Your task to perform on an android device: turn off wifi Image 0: 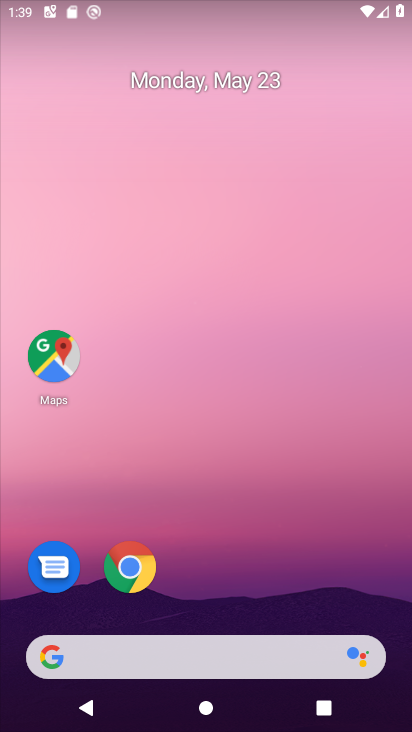
Step 0: drag from (262, 579) to (166, 161)
Your task to perform on an android device: turn off wifi Image 1: 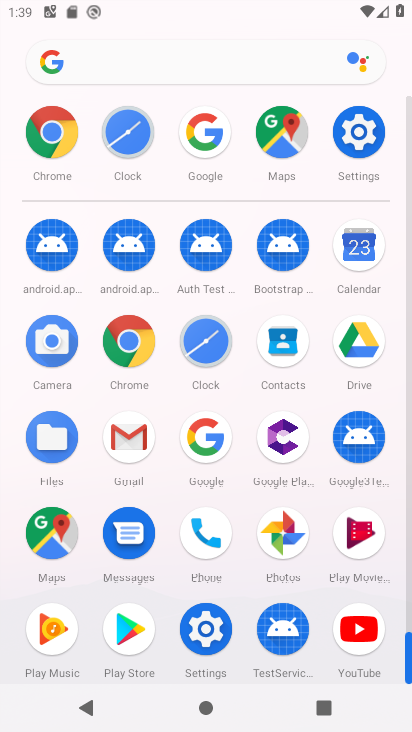
Step 1: click (345, 148)
Your task to perform on an android device: turn off wifi Image 2: 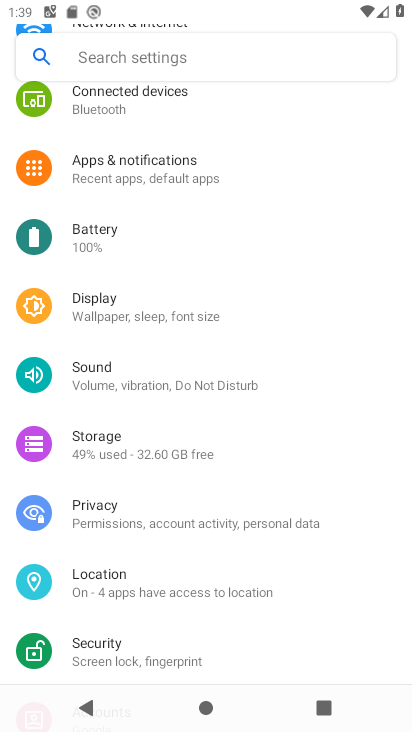
Step 2: drag from (155, 172) to (193, 601)
Your task to perform on an android device: turn off wifi Image 3: 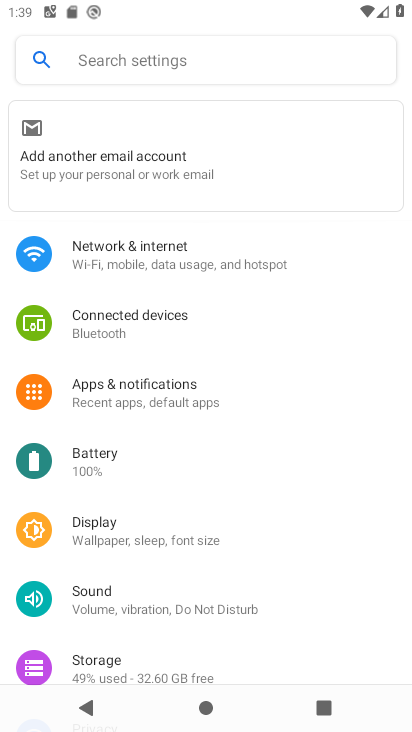
Step 3: click (112, 256)
Your task to perform on an android device: turn off wifi Image 4: 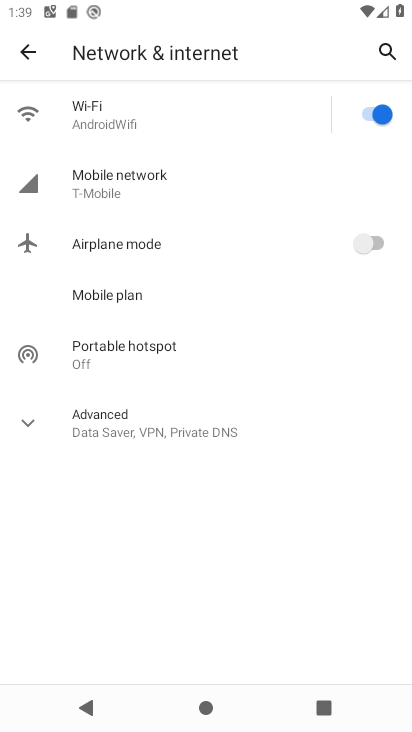
Step 4: click (390, 106)
Your task to perform on an android device: turn off wifi Image 5: 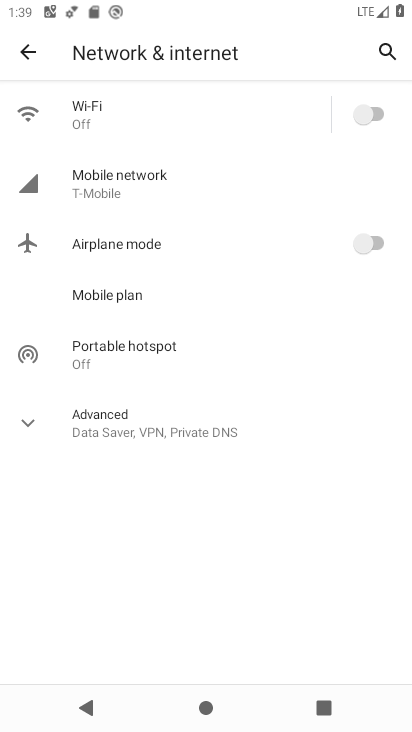
Step 5: task complete